Your task to perform on an android device: Open ESPN.com Image 0: 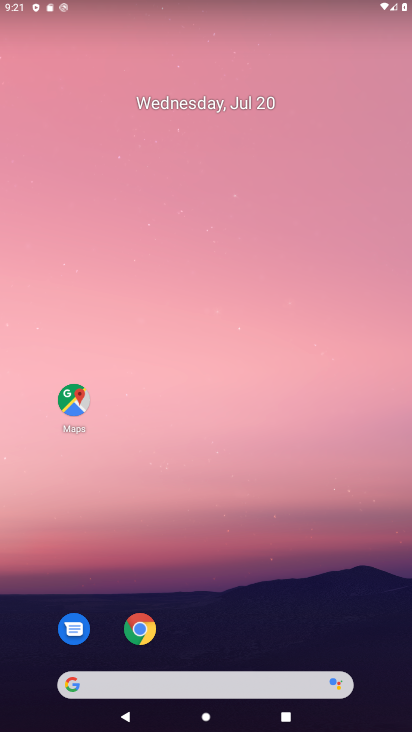
Step 0: click (138, 620)
Your task to perform on an android device: Open ESPN.com Image 1: 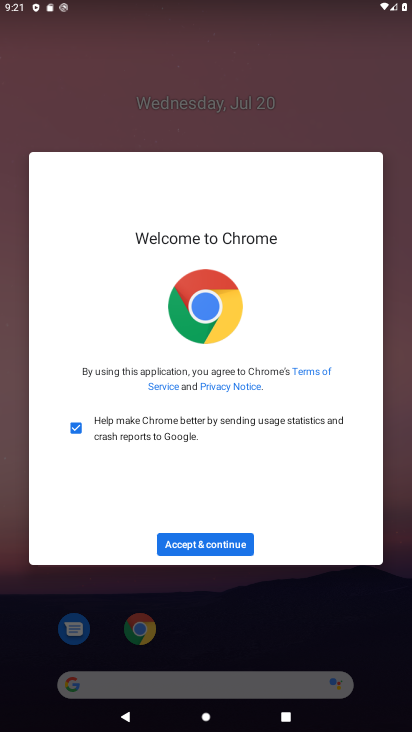
Step 1: click (238, 549)
Your task to perform on an android device: Open ESPN.com Image 2: 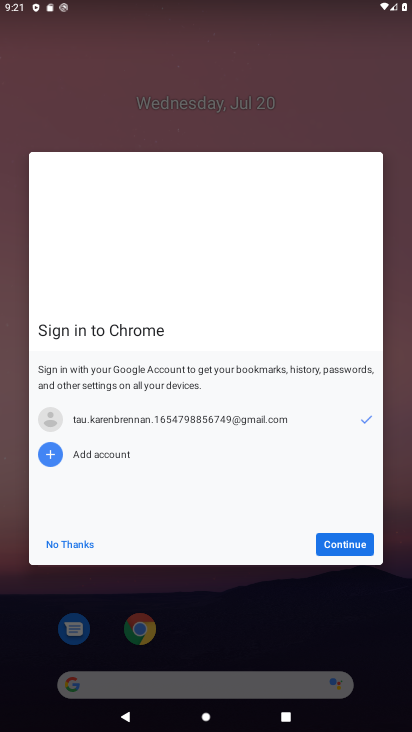
Step 2: click (348, 550)
Your task to perform on an android device: Open ESPN.com Image 3: 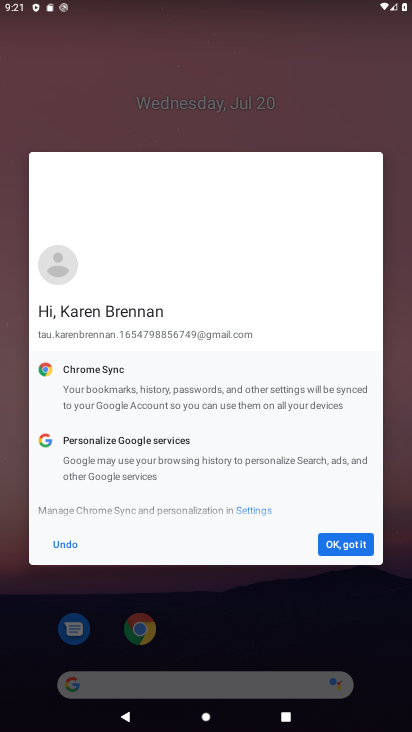
Step 3: click (348, 536)
Your task to perform on an android device: Open ESPN.com Image 4: 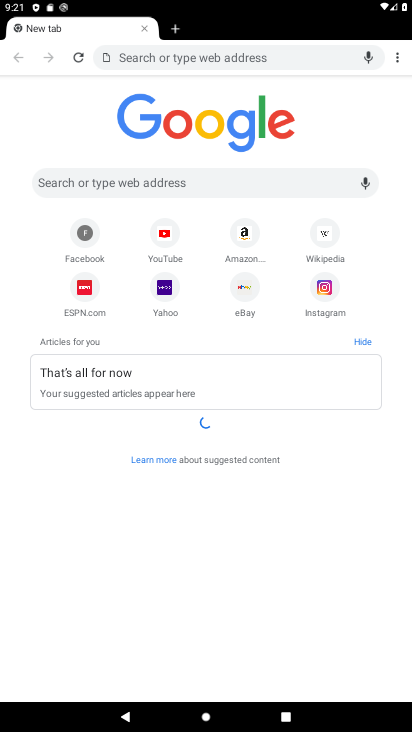
Step 4: click (88, 281)
Your task to perform on an android device: Open ESPN.com Image 5: 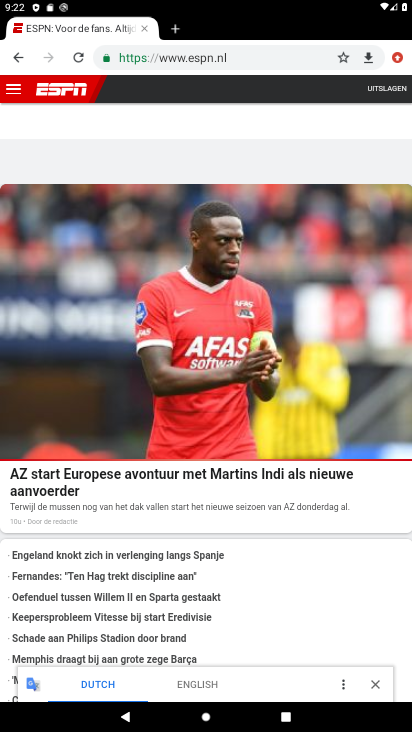
Step 5: task complete